Your task to perform on an android device: toggle sleep mode Image 0: 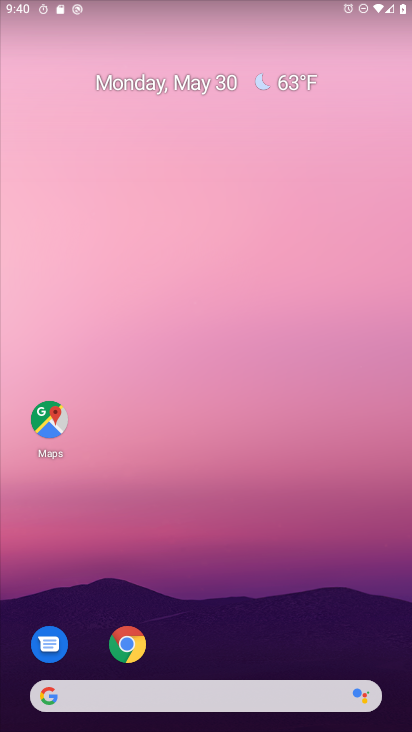
Step 0: drag from (208, 648) to (230, 65)
Your task to perform on an android device: toggle sleep mode Image 1: 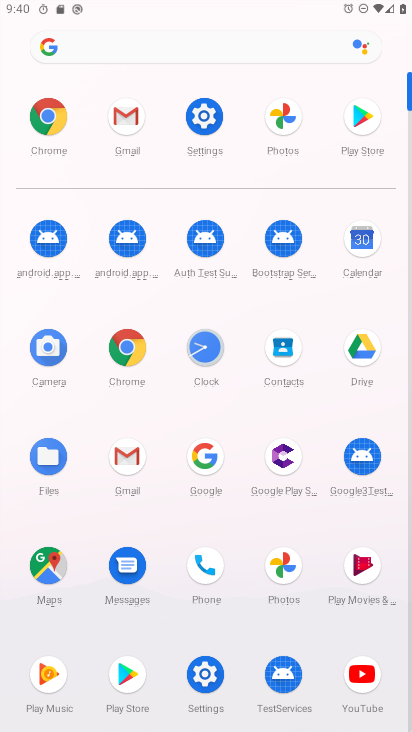
Step 1: click (207, 116)
Your task to perform on an android device: toggle sleep mode Image 2: 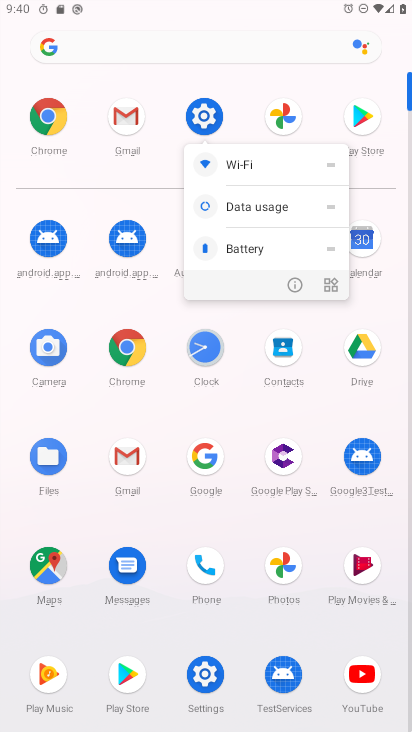
Step 2: click (233, 75)
Your task to perform on an android device: toggle sleep mode Image 3: 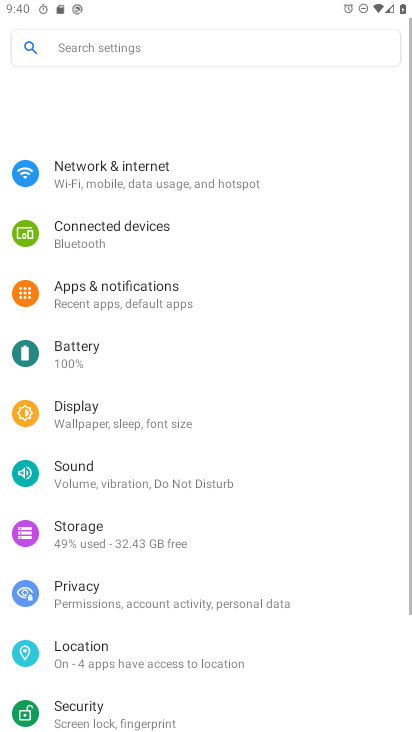
Step 3: click (206, 118)
Your task to perform on an android device: toggle sleep mode Image 4: 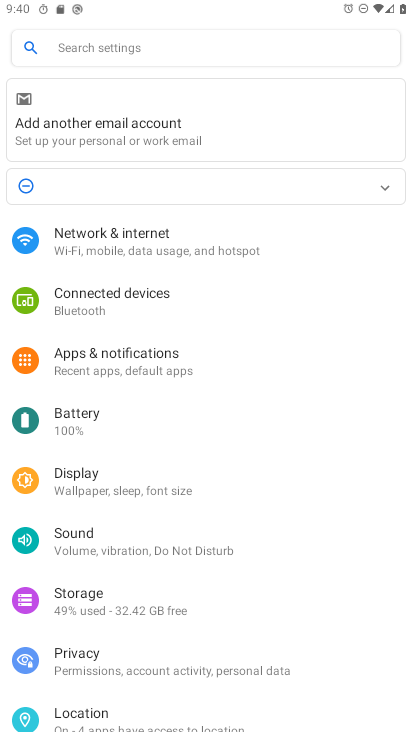
Step 4: click (140, 486)
Your task to perform on an android device: toggle sleep mode Image 5: 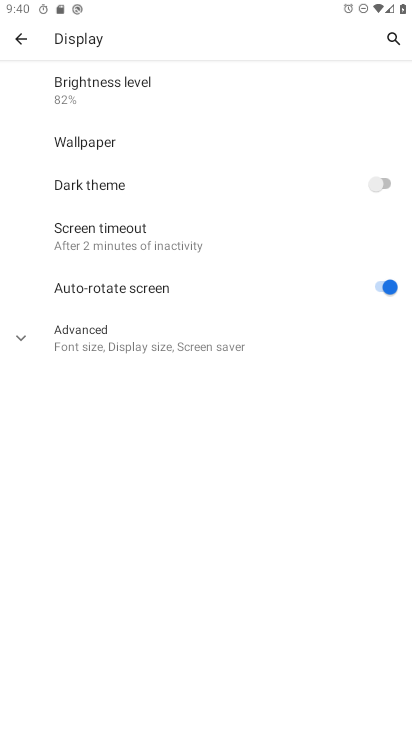
Step 5: click (111, 240)
Your task to perform on an android device: toggle sleep mode Image 6: 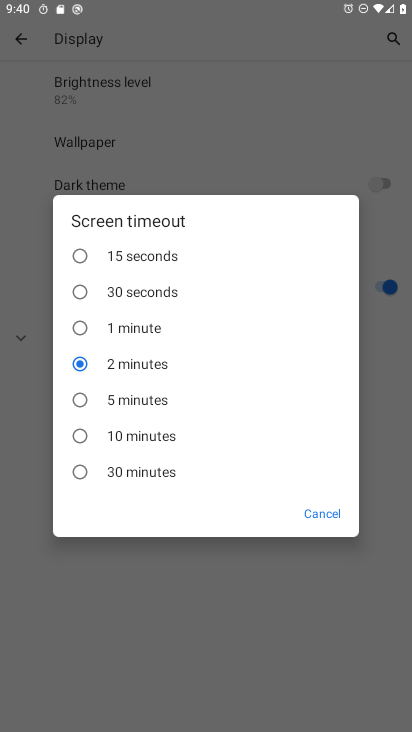
Step 6: click (83, 326)
Your task to perform on an android device: toggle sleep mode Image 7: 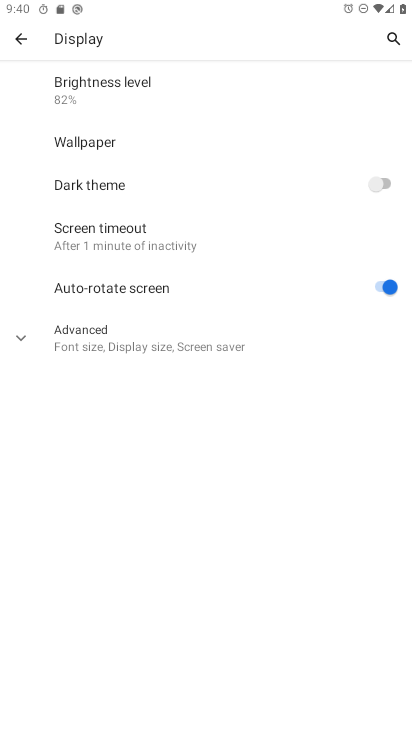
Step 7: task complete